Your task to perform on an android device: turn off picture-in-picture Image 0: 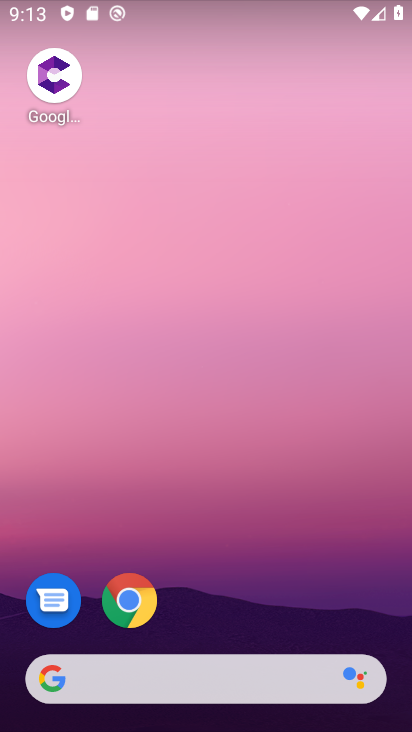
Step 0: click (129, 599)
Your task to perform on an android device: turn off picture-in-picture Image 1: 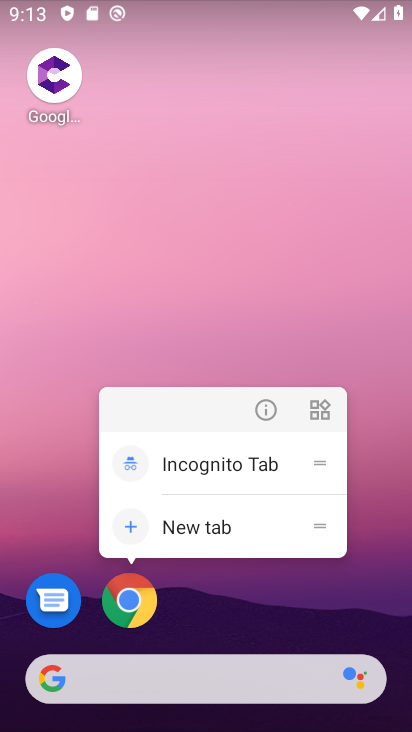
Step 1: click (264, 416)
Your task to perform on an android device: turn off picture-in-picture Image 2: 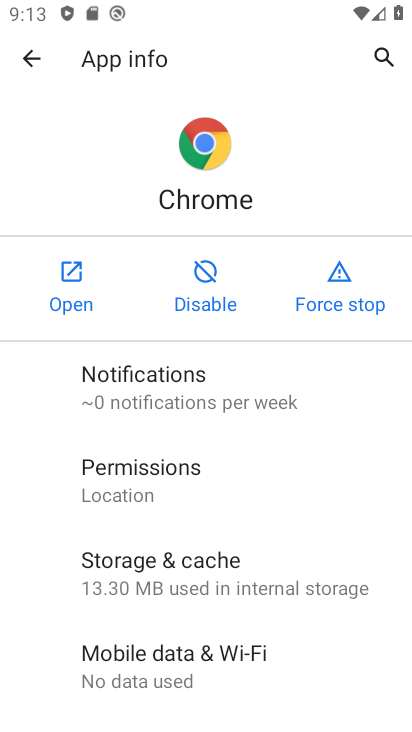
Step 2: drag from (119, 652) to (108, 100)
Your task to perform on an android device: turn off picture-in-picture Image 3: 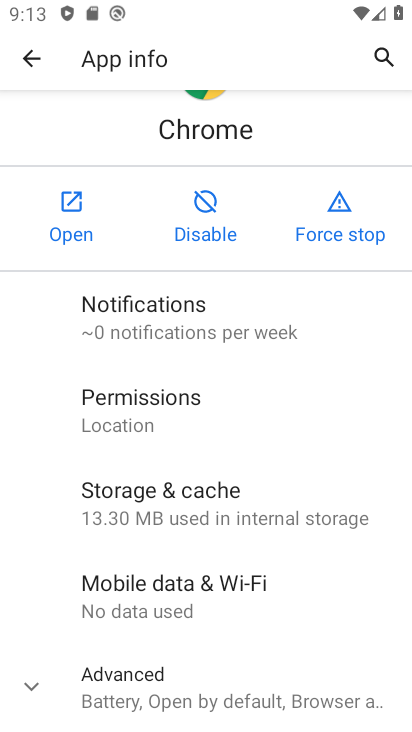
Step 3: drag from (185, 662) to (181, 144)
Your task to perform on an android device: turn off picture-in-picture Image 4: 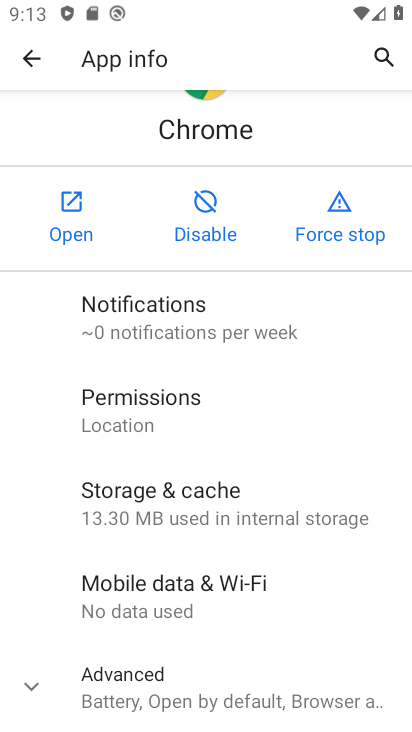
Step 4: click (131, 670)
Your task to perform on an android device: turn off picture-in-picture Image 5: 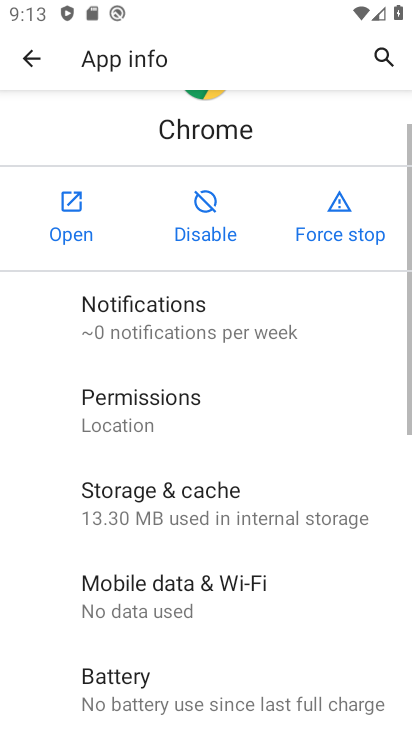
Step 5: drag from (131, 670) to (106, 69)
Your task to perform on an android device: turn off picture-in-picture Image 6: 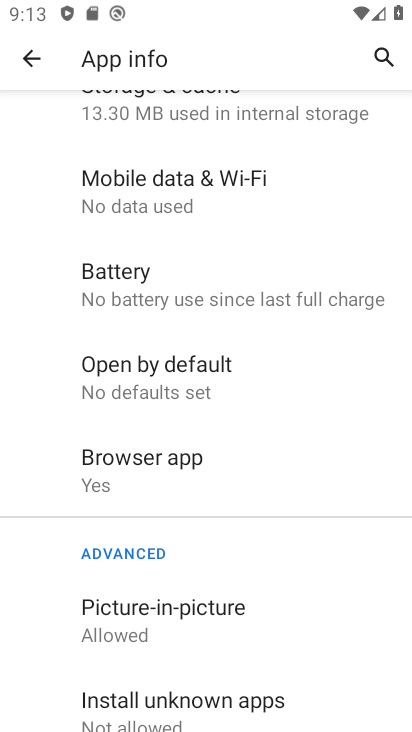
Step 6: click (177, 621)
Your task to perform on an android device: turn off picture-in-picture Image 7: 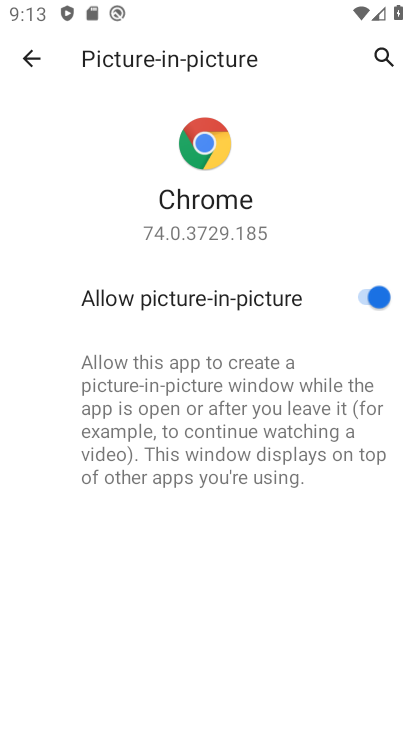
Step 7: click (370, 294)
Your task to perform on an android device: turn off picture-in-picture Image 8: 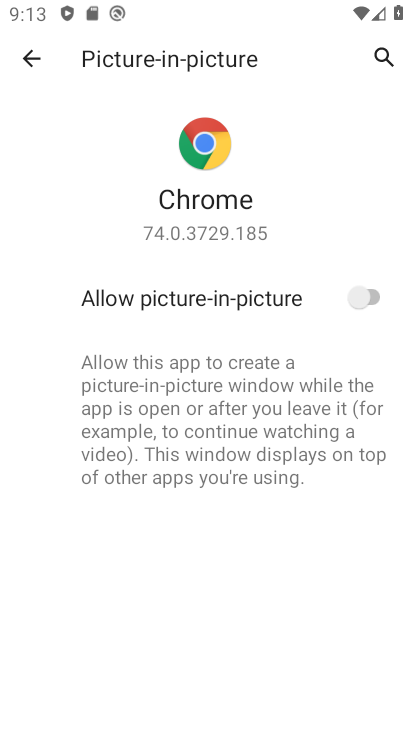
Step 8: task complete